Your task to perform on an android device: change the clock display to show seconds Image 0: 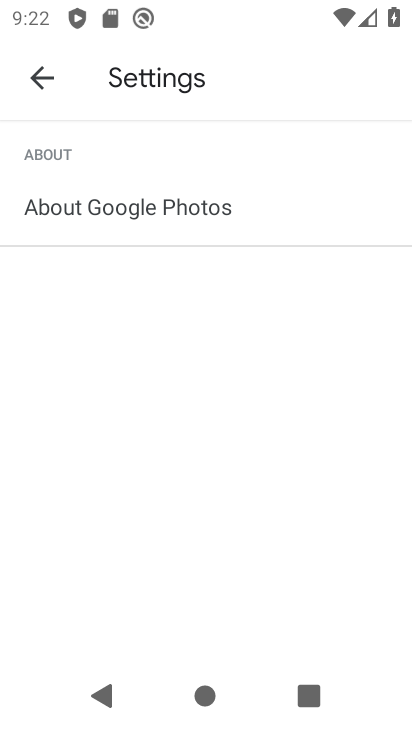
Step 0: press home button
Your task to perform on an android device: change the clock display to show seconds Image 1: 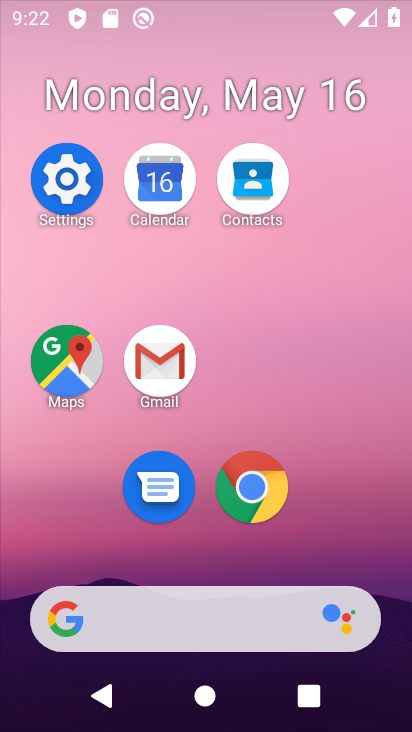
Step 1: drag from (337, 413) to (323, 69)
Your task to perform on an android device: change the clock display to show seconds Image 2: 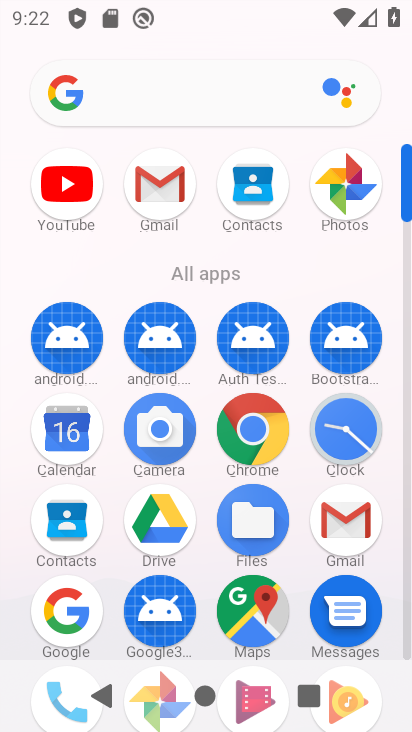
Step 2: drag from (363, 429) to (300, 190)
Your task to perform on an android device: change the clock display to show seconds Image 3: 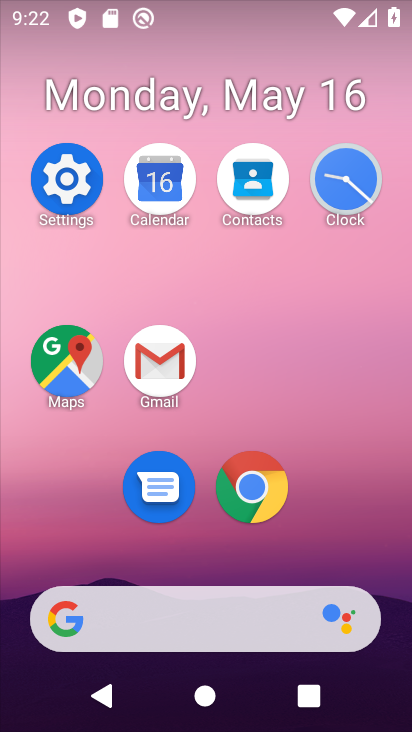
Step 3: click (354, 183)
Your task to perform on an android device: change the clock display to show seconds Image 4: 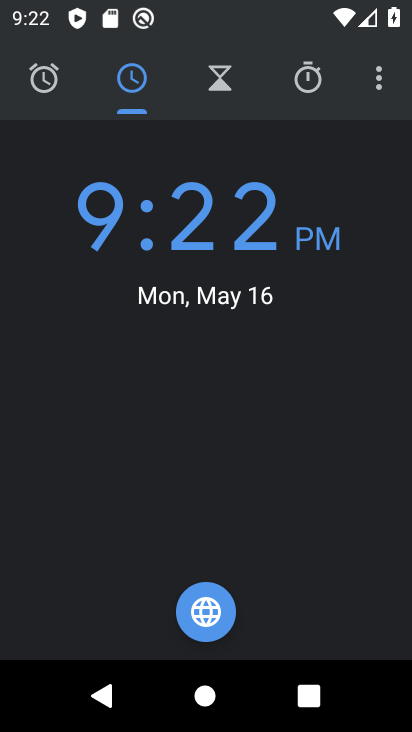
Step 4: click (356, 74)
Your task to perform on an android device: change the clock display to show seconds Image 5: 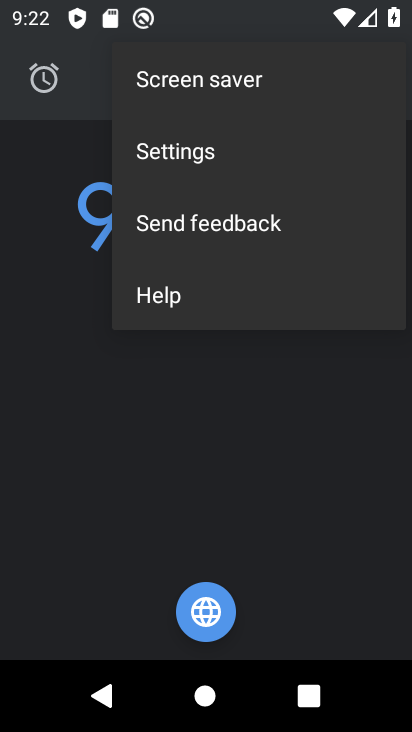
Step 5: click (221, 157)
Your task to perform on an android device: change the clock display to show seconds Image 6: 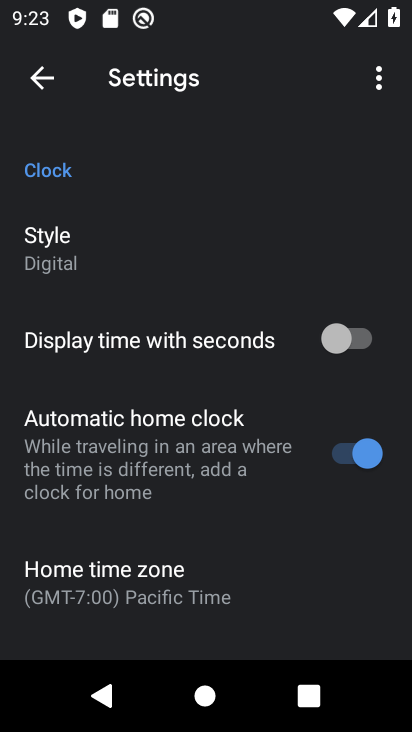
Step 6: click (321, 334)
Your task to perform on an android device: change the clock display to show seconds Image 7: 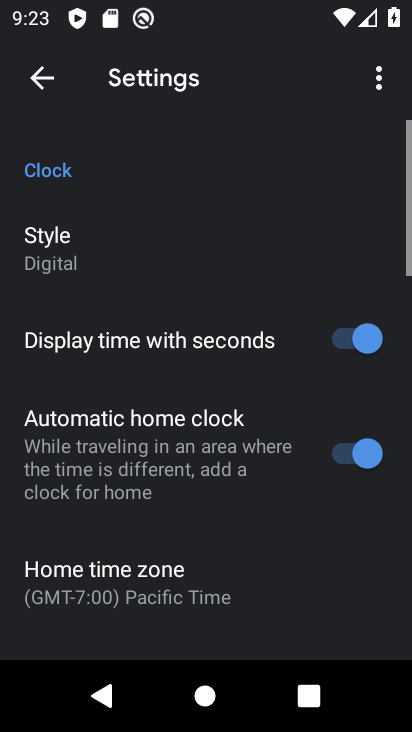
Step 7: task complete